Your task to perform on an android device: When is my next appointment? Image 0: 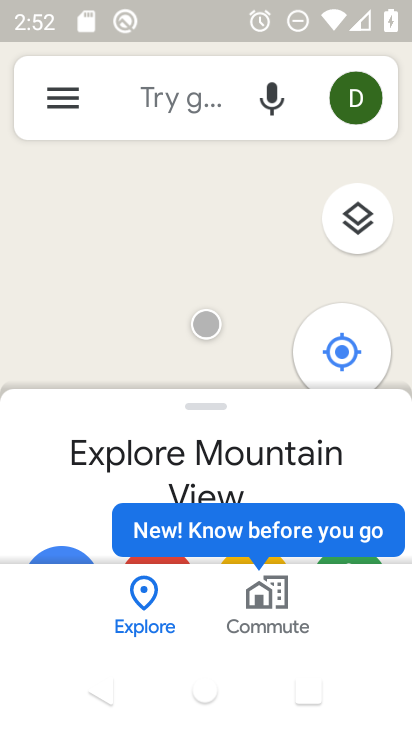
Step 0: press home button
Your task to perform on an android device: When is my next appointment? Image 1: 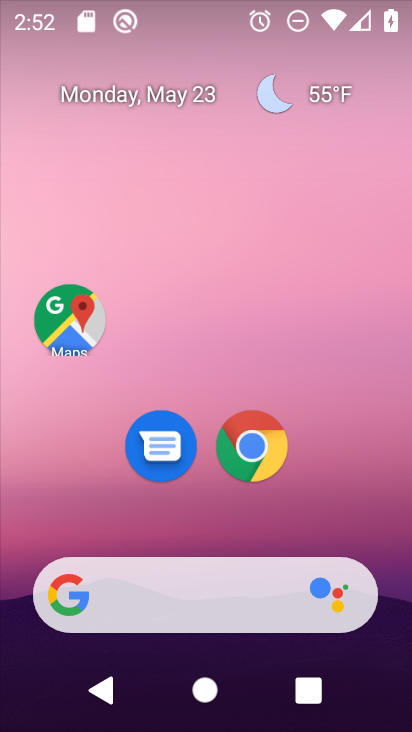
Step 1: drag from (215, 520) to (214, 172)
Your task to perform on an android device: When is my next appointment? Image 2: 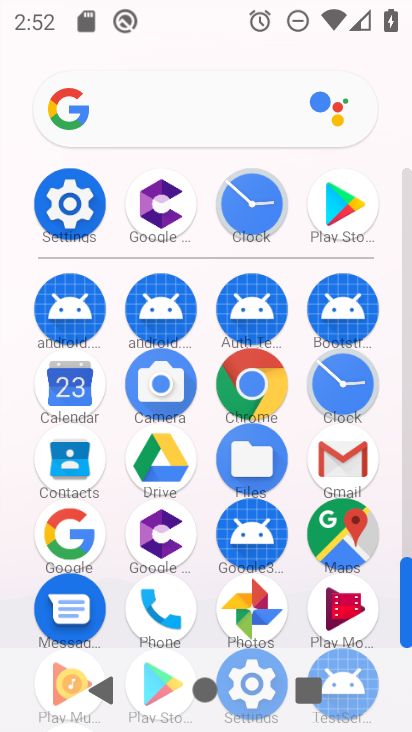
Step 2: click (85, 392)
Your task to perform on an android device: When is my next appointment? Image 3: 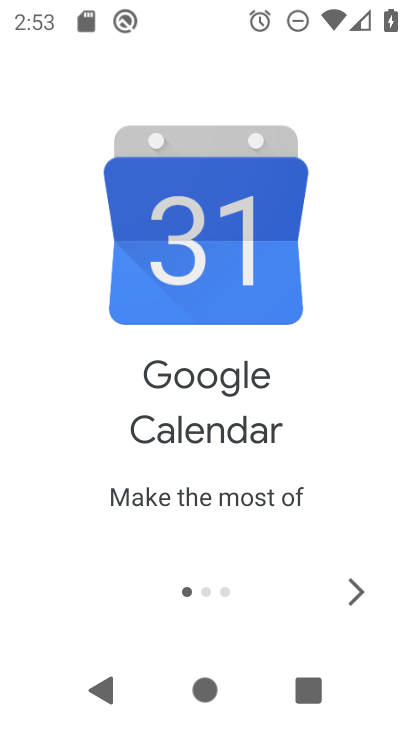
Step 3: click (340, 586)
Your task to perform on an android device: When is my next appointment? Image 4: 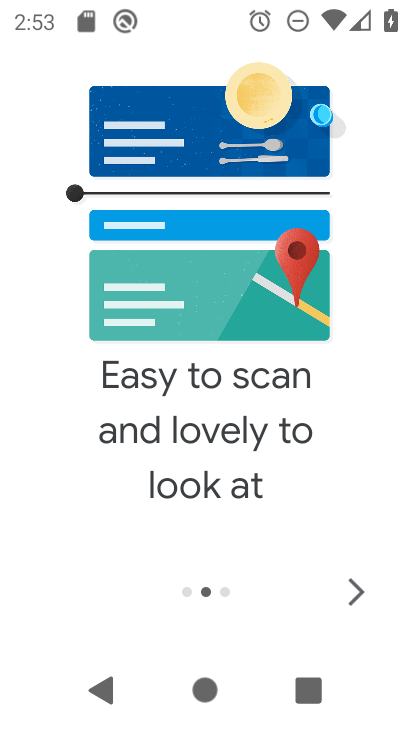
Step 4: click (340, 586)
Your task to perform on an android device: When is my next appointment? Image 5: 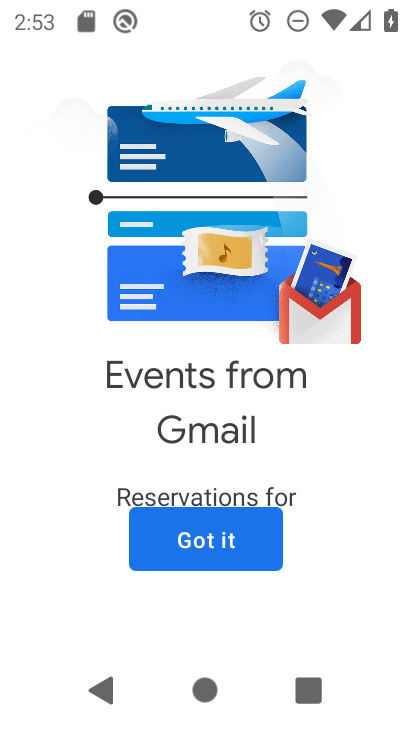
Step 5: click (205, 543)
Your task to perform on an android device: When is my next appointment? Image 6: 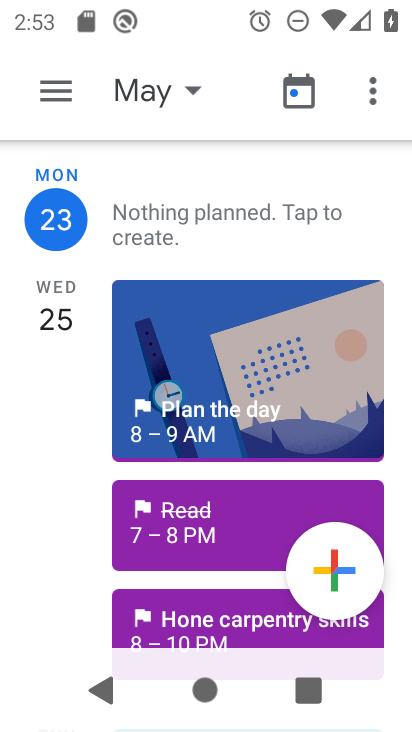
Step 6: click (167, 101)
Your task to perform on an android device: When is my next appointment? Image 7: 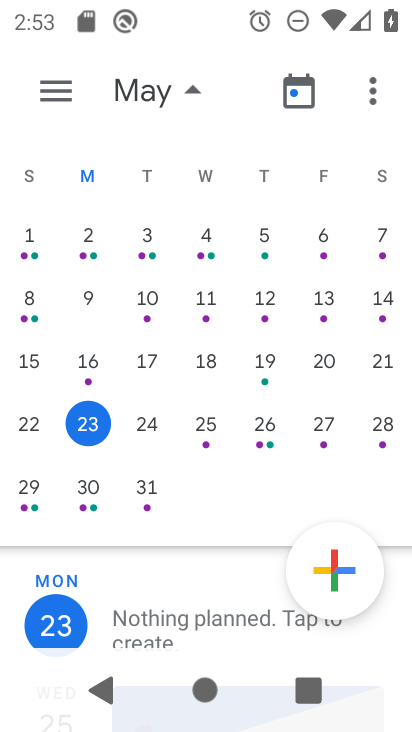
Step 7: task complete